Your task to perform on an android device: Search for Mexican restaurants on Maps Image 0: 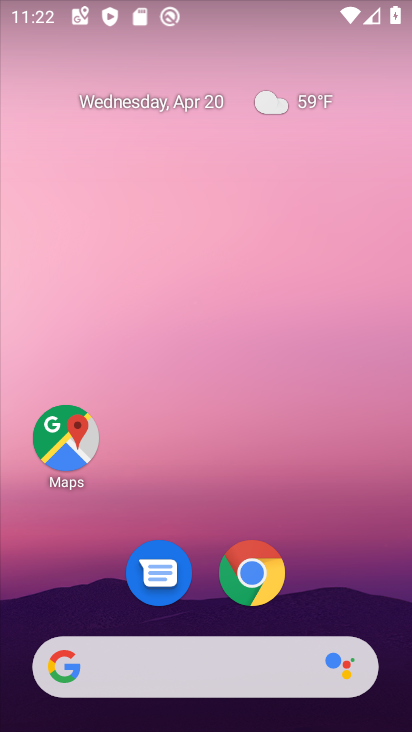
Step 0: click (68, 448)
Your task to perform on an android device: Search for Mexican restaurants on Maps Image 1: 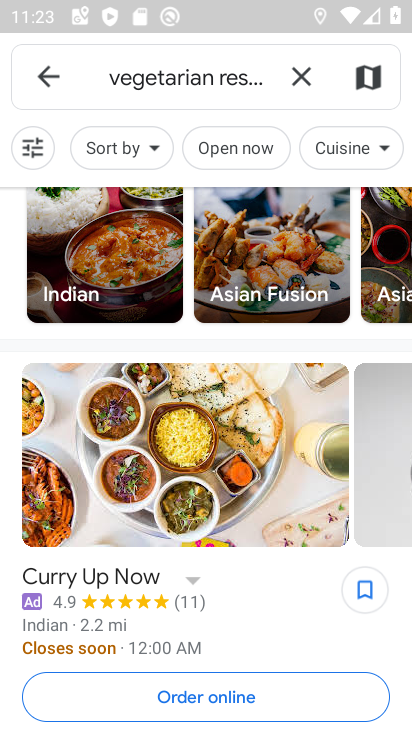
Step 1: click (304, 79)
Your task to perform on an android device: Search for Mexican restaurants on Maps Image 2: 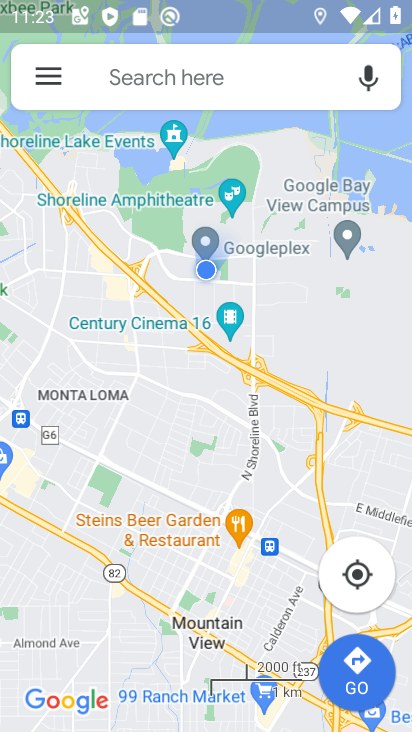
Step 2: click (119, 76)
Your task to perform on an android device: Search for Mexican restaurants on Maps Image 3: 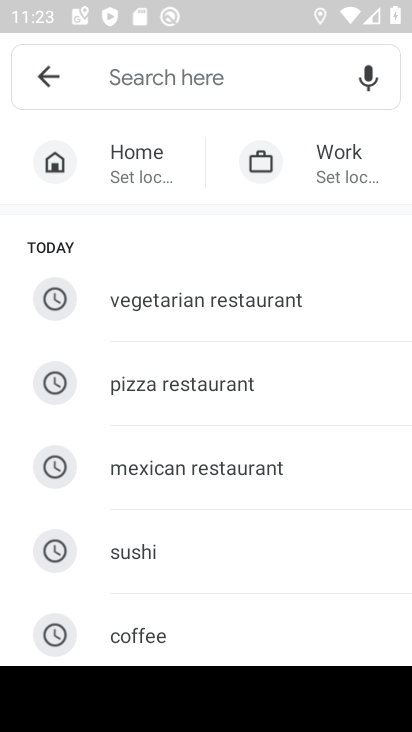
Step 3: type "mexican restaurant"
Your task to perform on an android device: Search for Mexican restaurants on Maps Image 4: 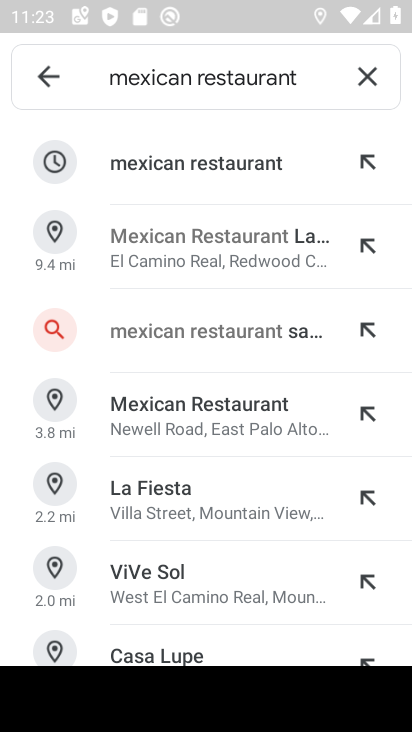
Step 4: click (152, 172)
Your task to perform on an android device: Search for Mexican restaurants on Maps Image 5: 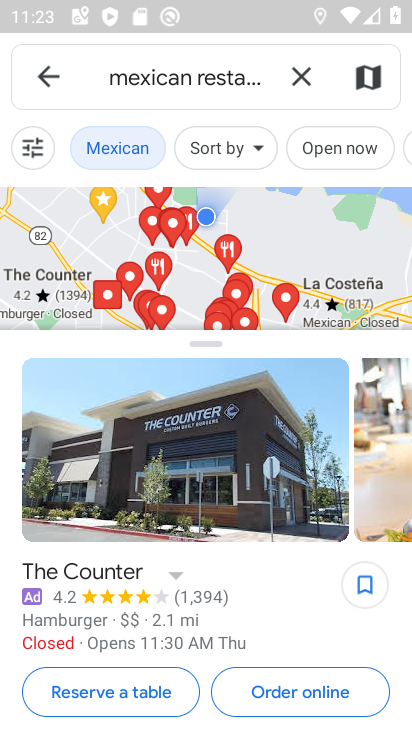
Step 5: task complete